Your task to perform on an android device: Go to display settings Image 0: 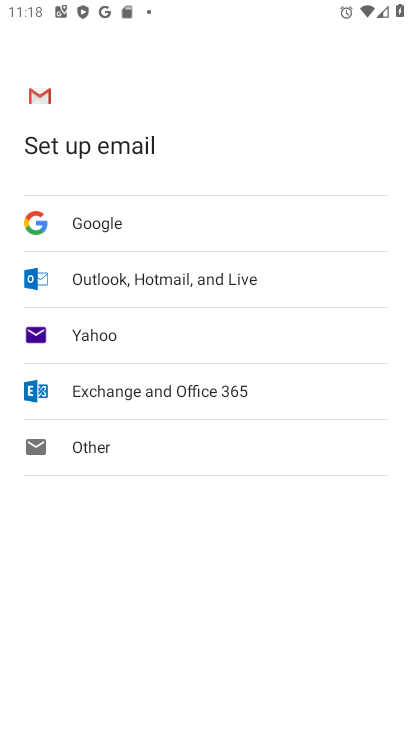
Step 0: press home button
Your task to perform on an android device: Go to display settings Image 1: 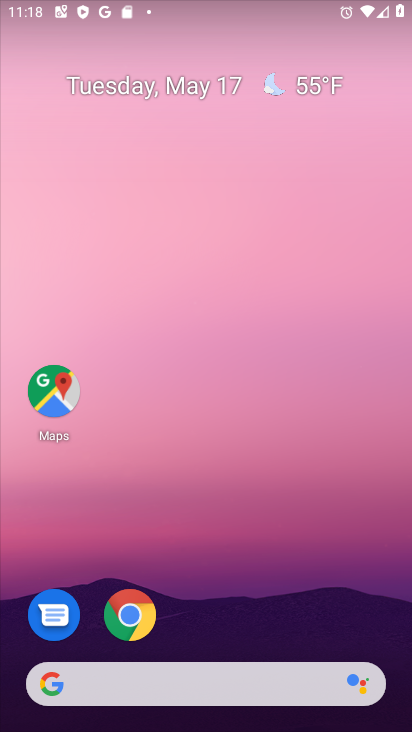
Step 1: drag from (251, 567) to (320, 167)
Your task to perform on an android device: Go to display settings Image 2: 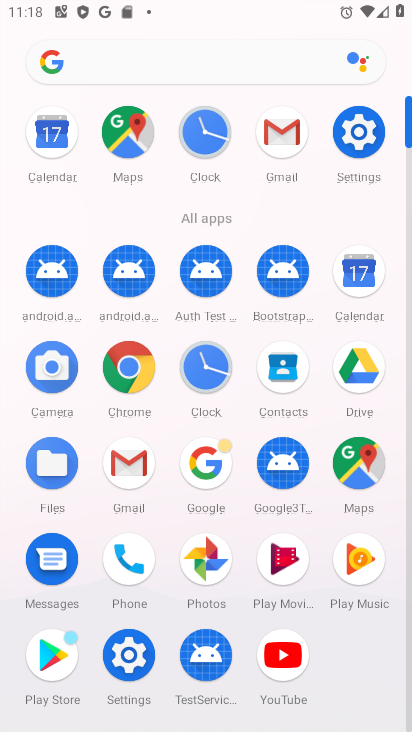
Step 2: click (353, 128)
Your task to perform on an android device: Go to display settings Image 3: 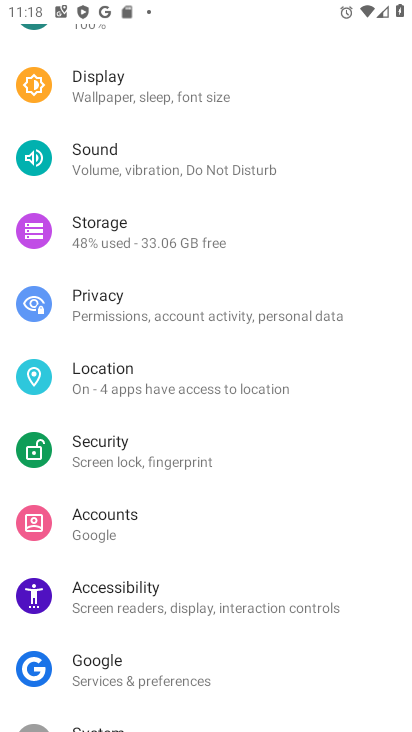
Step 3: click (198, 99)
Your task to perform on an android device: Go to display settings Image 4: 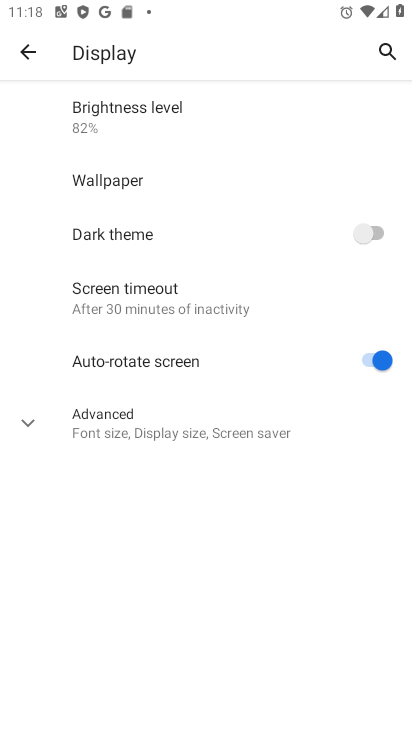
Step 4: task complete